Your task to perform on an android device: Open Yahoo.com Image 0: 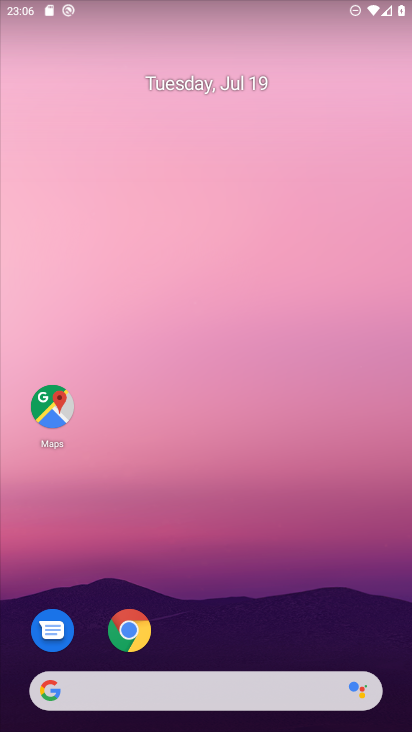
Step 0: click (115, 621)
Your task to perform on an android device: Open Yahoo.com Image 1: 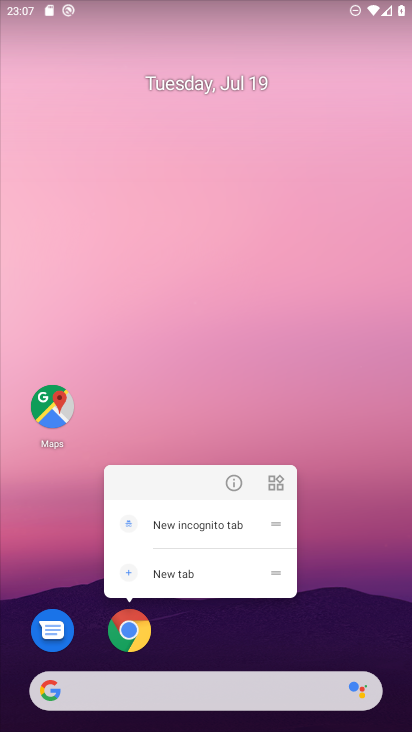
Step 1: click (119, 622)
Your task to perform on an android device: Open Yahoo.com Image 2: 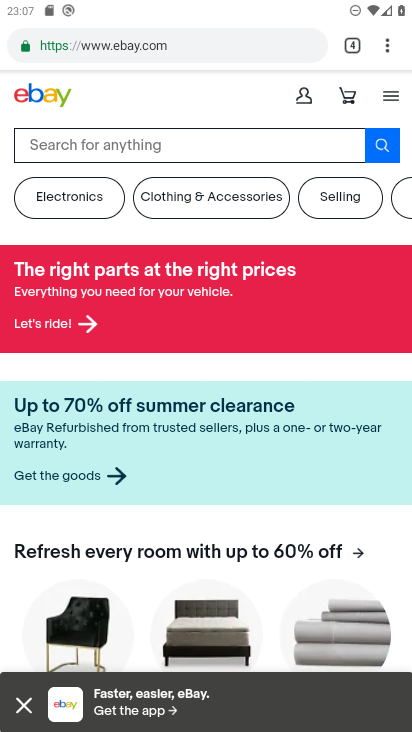
Step 2: click (357, 52)
Your task to perform on an android device: Open Yahoo.com Image 3: 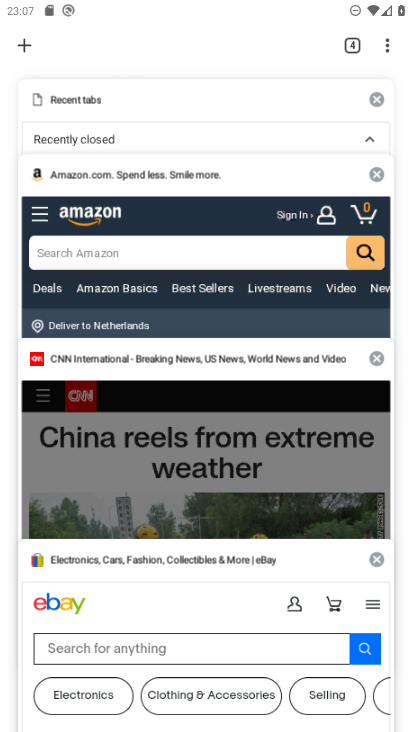
Step 3: click (16, 39)
Your task to perform on an android device: Open Yahoo.com Image 4: 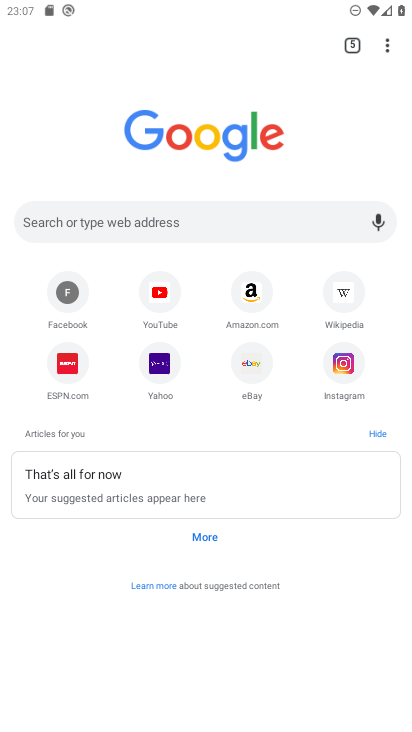
Step 4: click (169, 347)
Your task to perform on an android device: Open Yahoo.com Image 5: 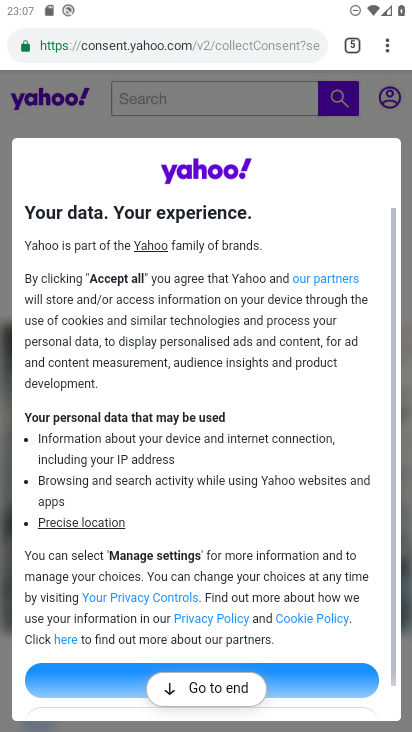
Step 5: task complete